Your task to perform on an android device: open app "VLC for Android" (install if not already installed) Image 0: 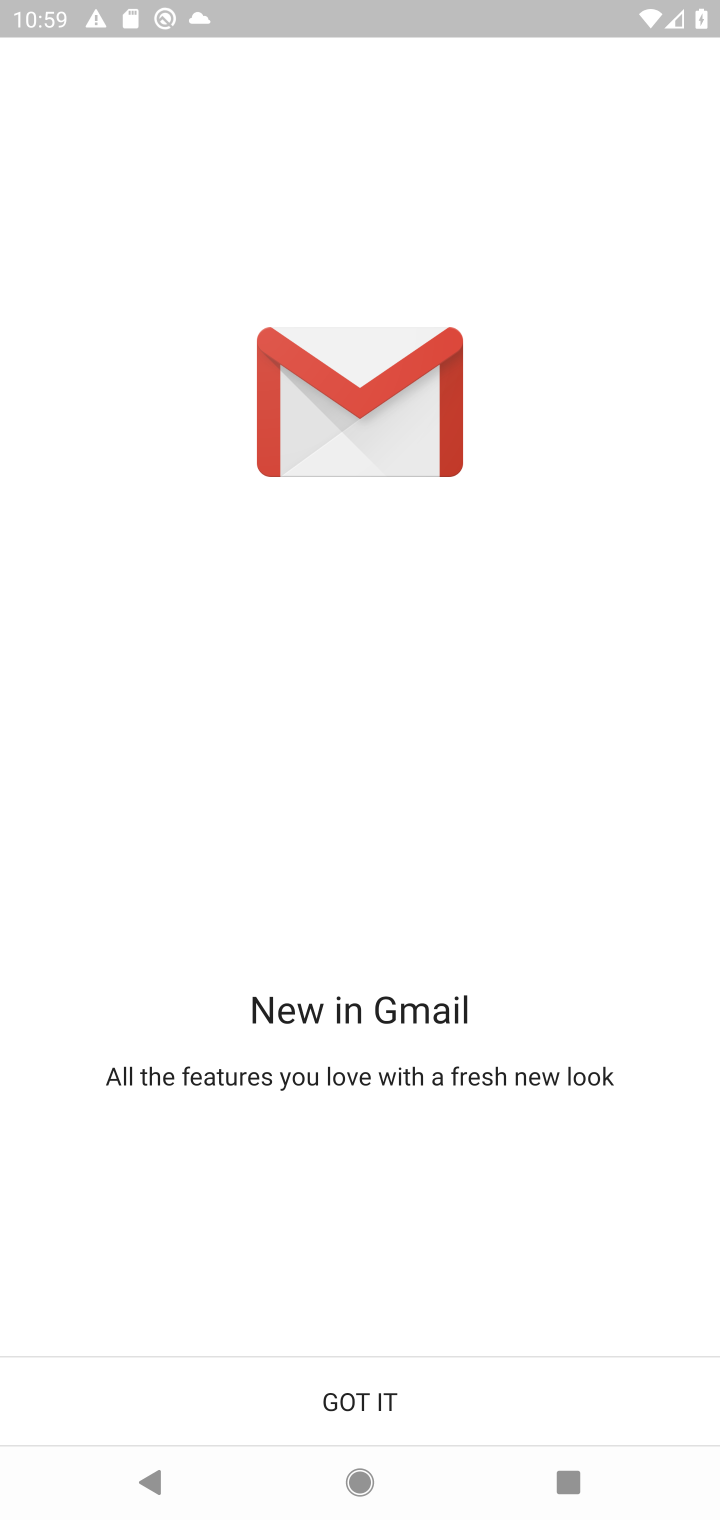
Step 0: press home button
Your task to perform on an android device: open app "VLC for Android" (install if not already installed) Image 1: 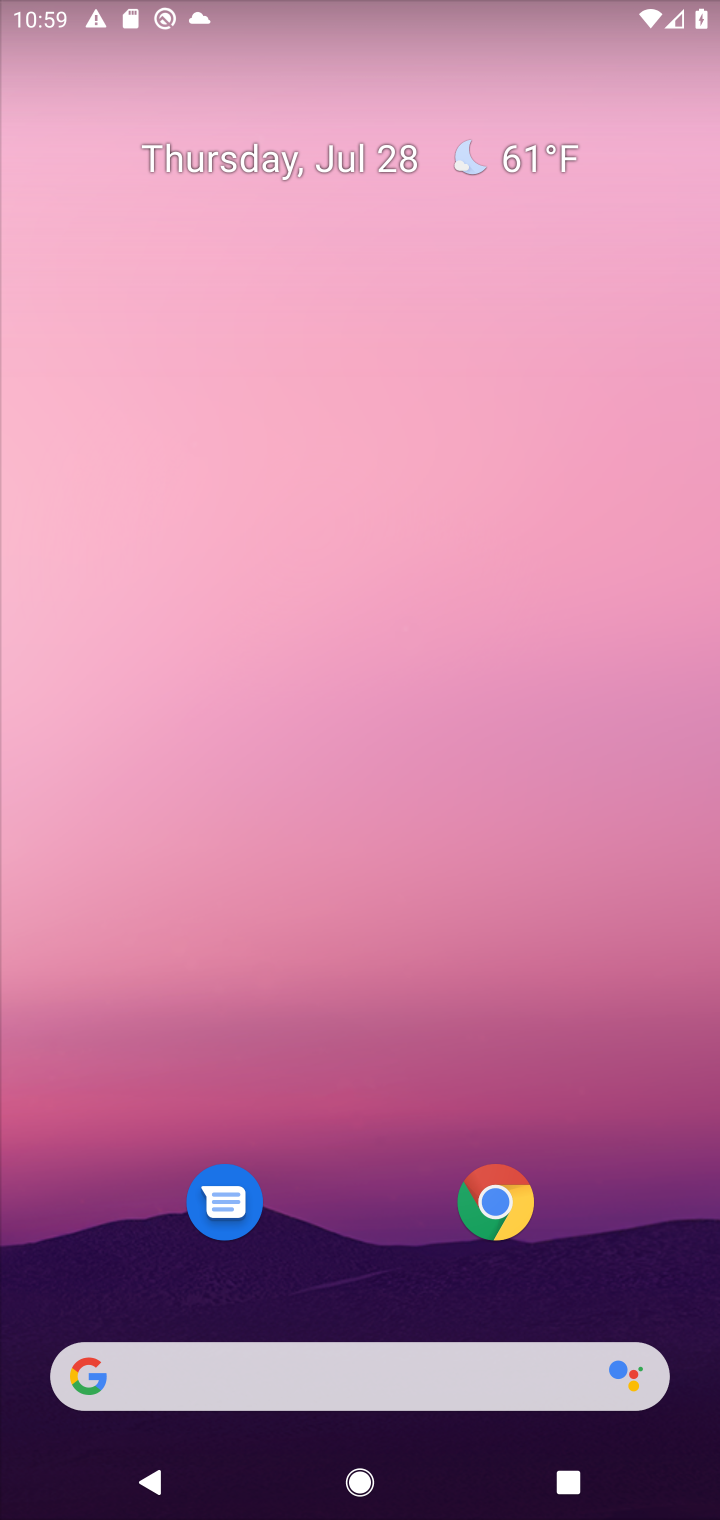
Step 1: drag from (377, 1294) to (377, 402)
Your task to perform on an android device: open app "VLC for Android" (install if not already installed) Image 2: 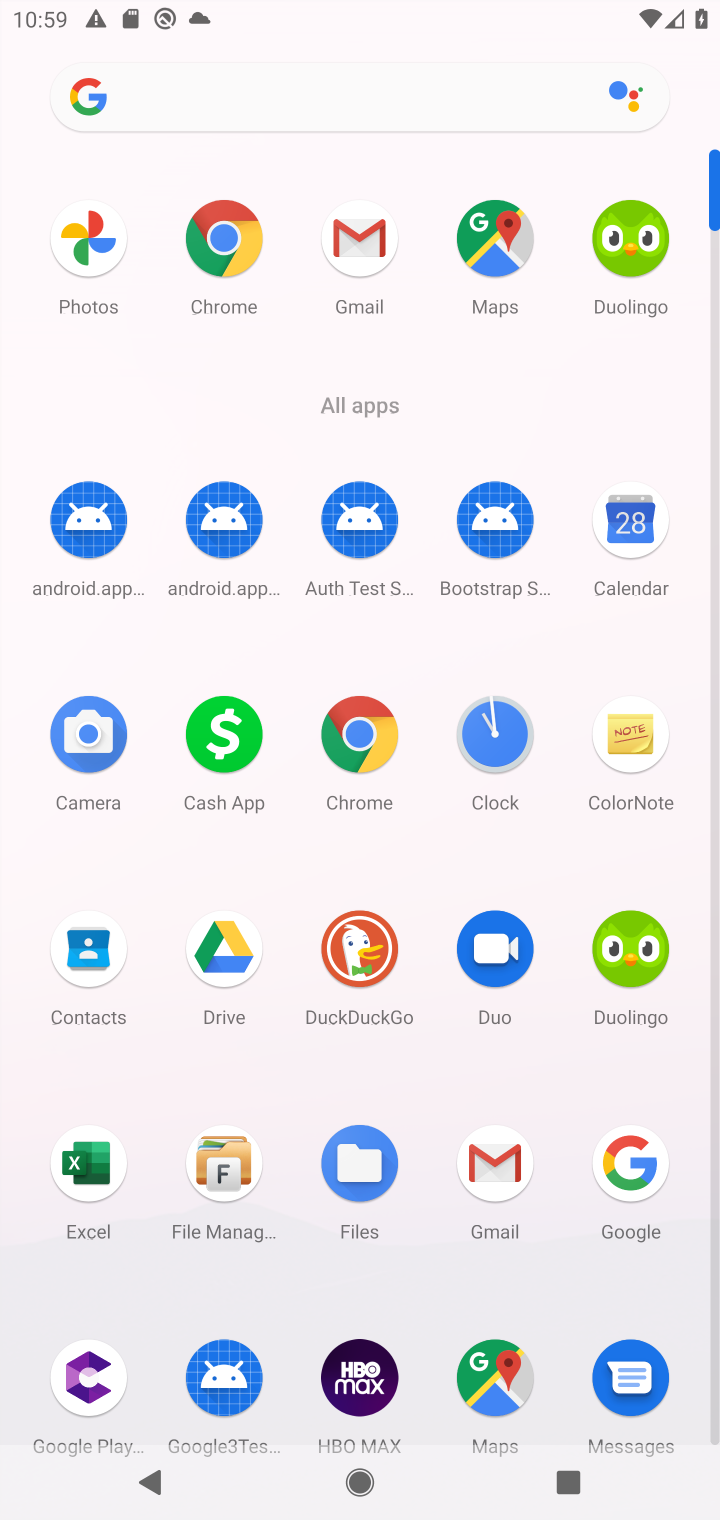
Step 2: click (374, 105)
Your task to perform on an android device: open app "VLC for Android" (install if not already installed) Image 3: 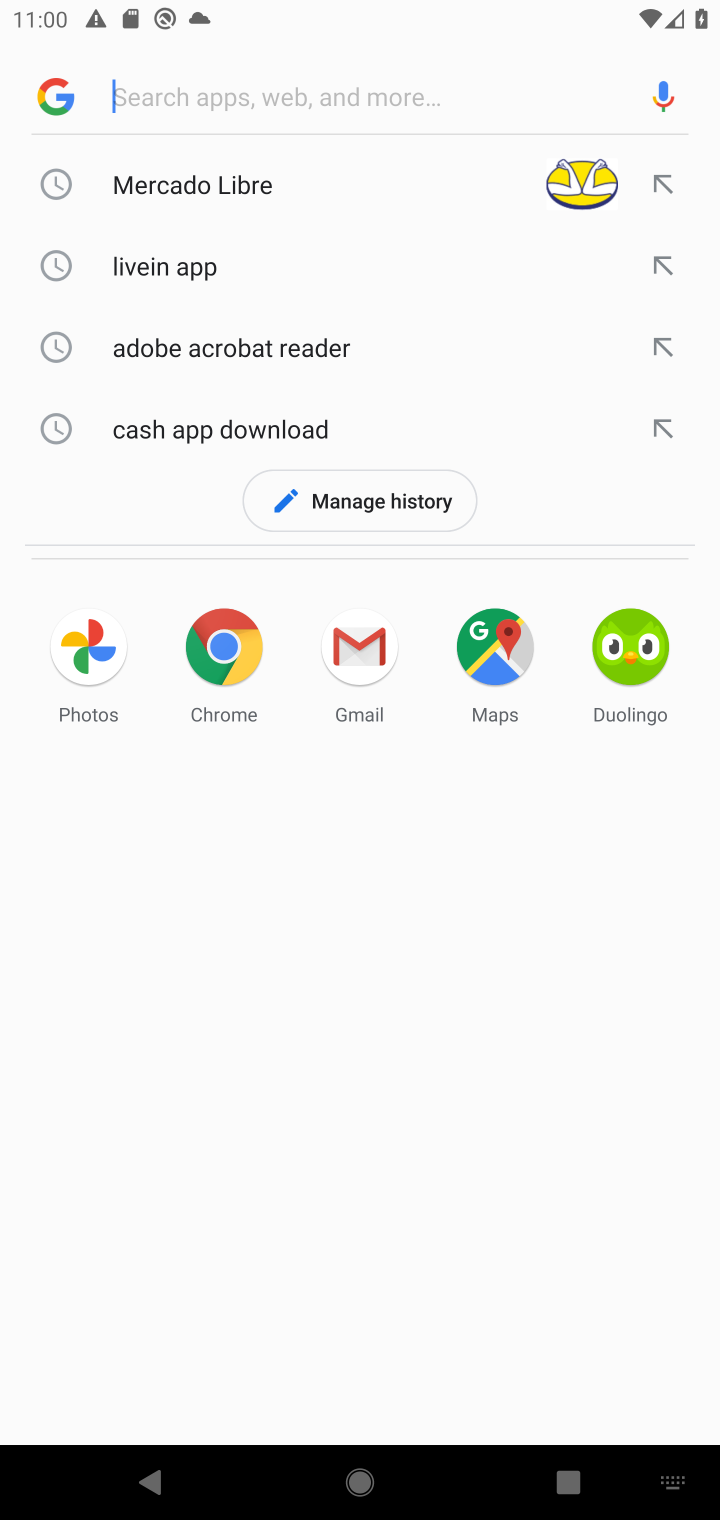
Step 3: type "vlc "
Your task to perform on an android device: open app "VLC for Android" (install if not already installed) Image 4: 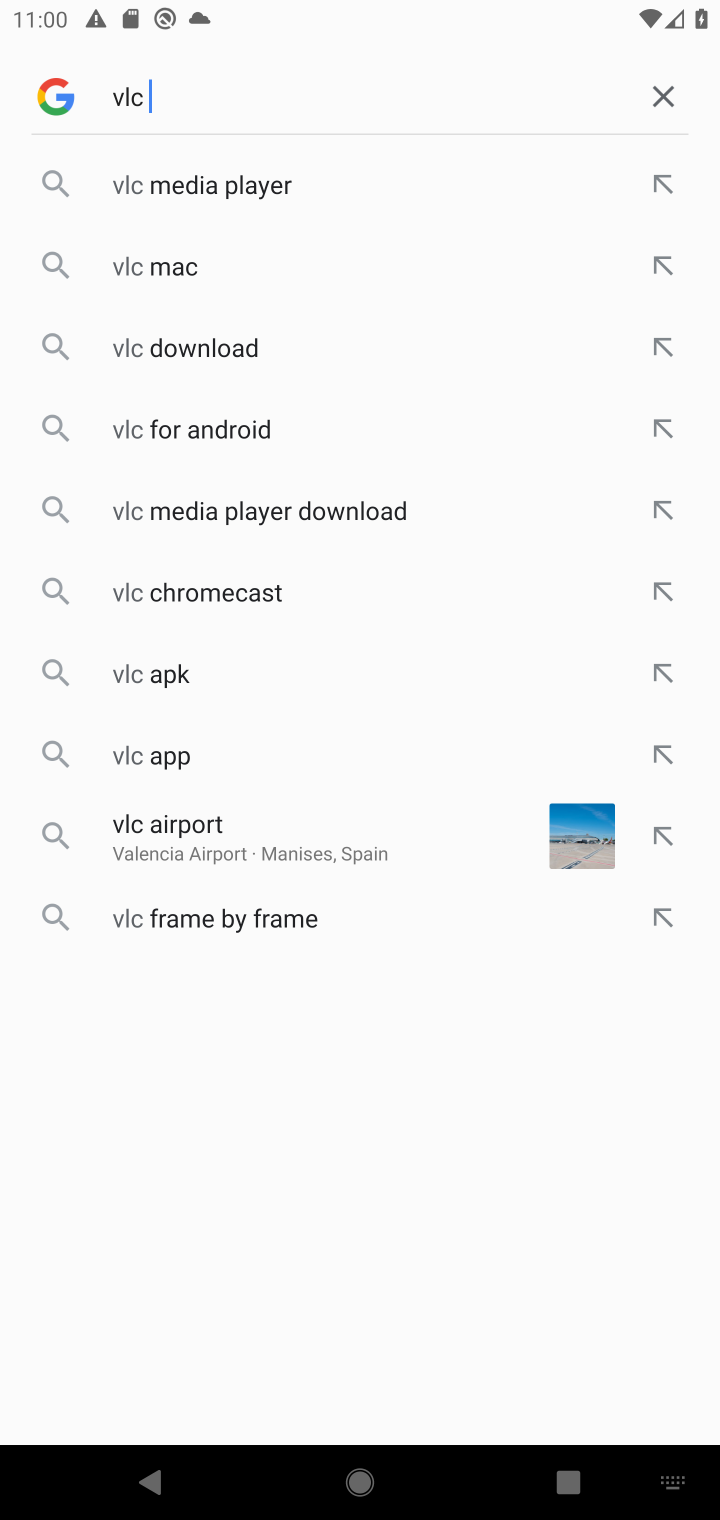
Step 4: click (255, 182)
Your task to perform on an android device: open app "VLC for Android" (install if not already installed) Image 5: 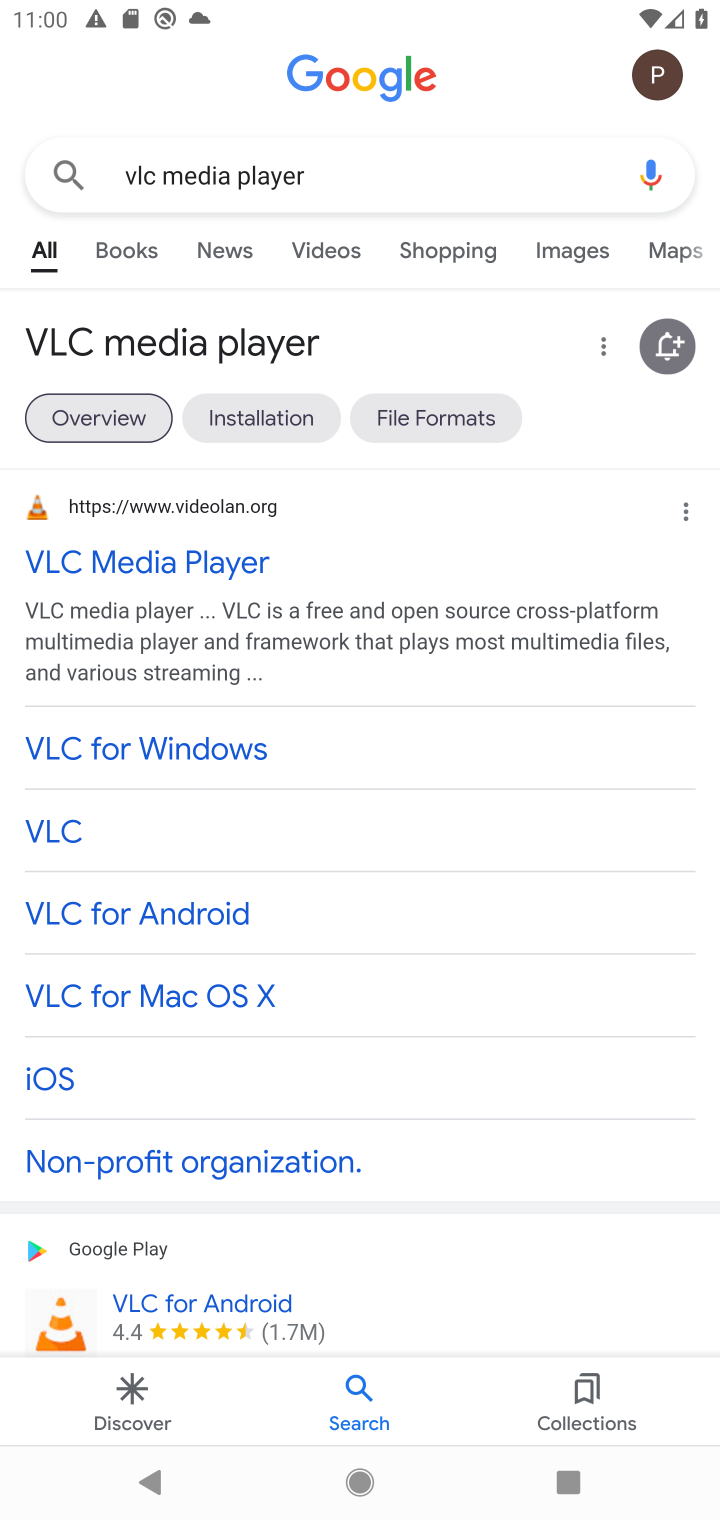
Step 5: drag from (492, 1280) to (512, 777)
Your task to perform on an android device: open app "VLC for Android" (install if not already installed) Image 6: 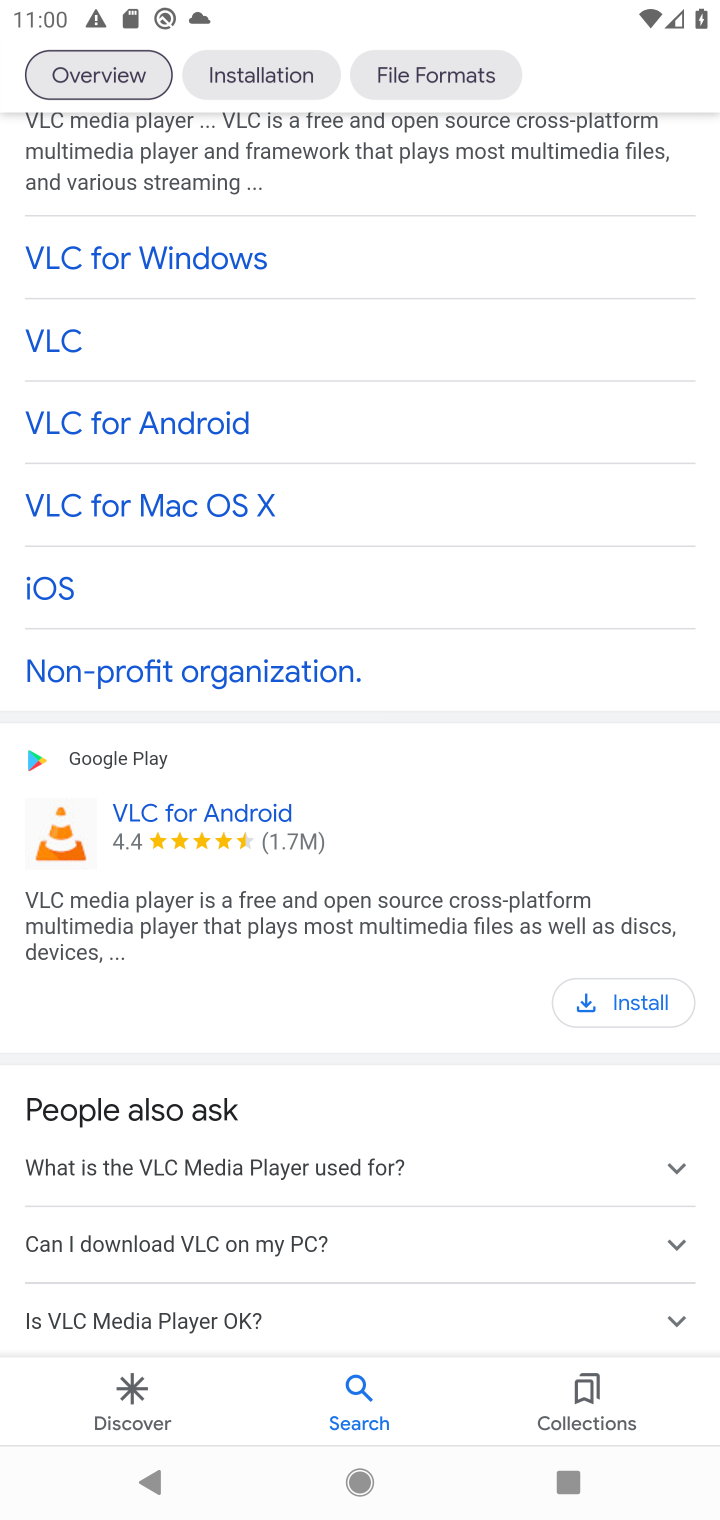
Step 6: click (632, 1014)
Your task to perform on an android device: open app "VLC for Android" (install if not already installed) Image 7: 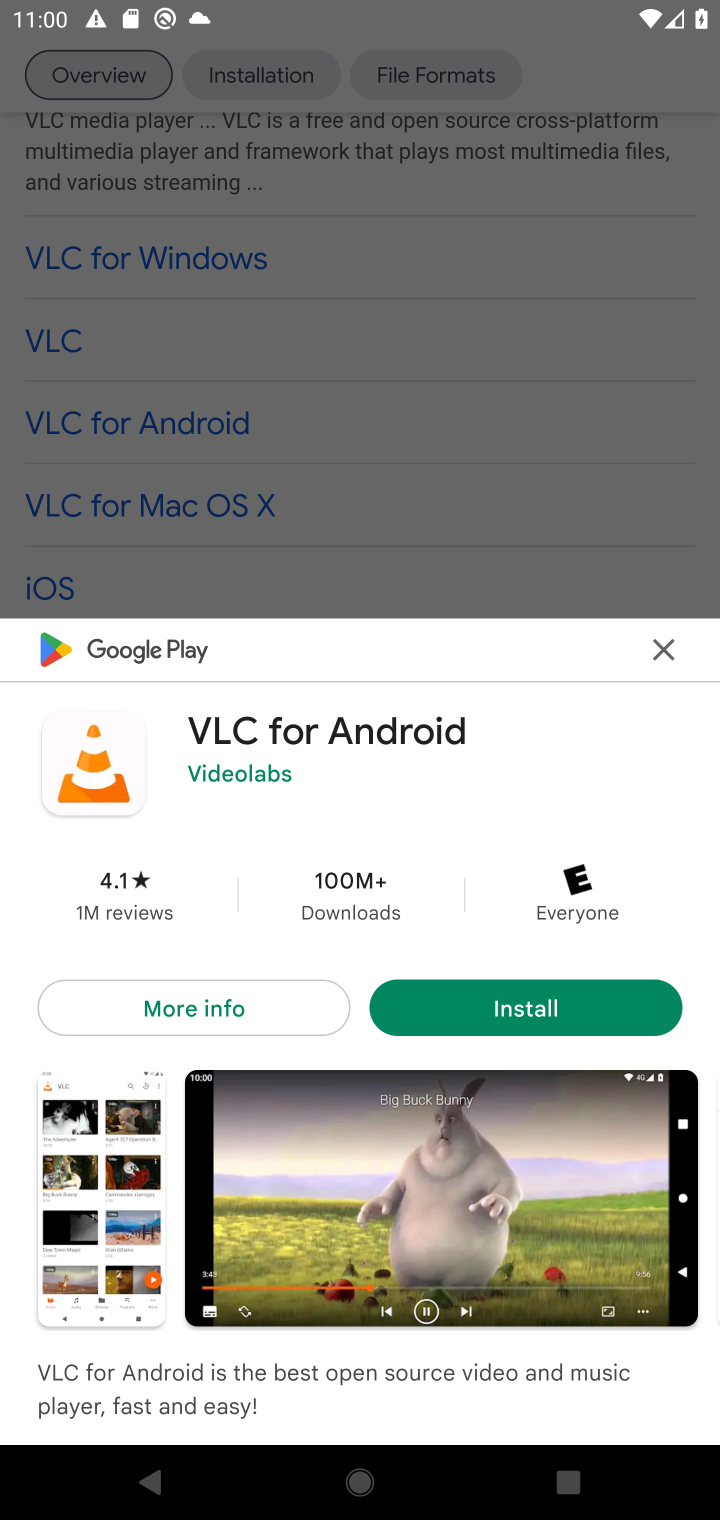
Step 7: click (632, 1014)
Your task to perform on an android device: open app "VLC for Android" (install if not already installed) Image 8: 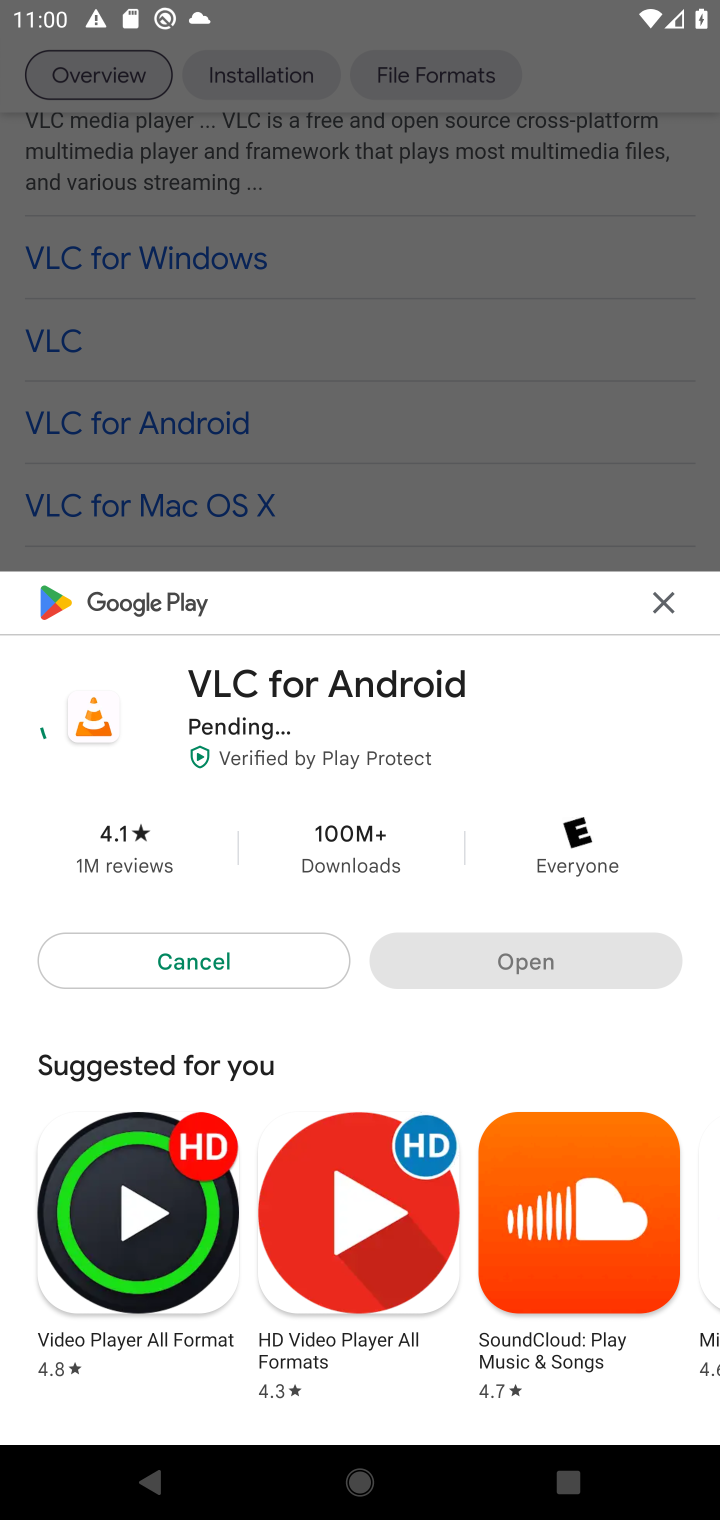
Step 8: task complete